Your task to perform on an android device: Clear all items from cart on ebay.com. Add logitech g pro to the cart on ebay.com Image 0: 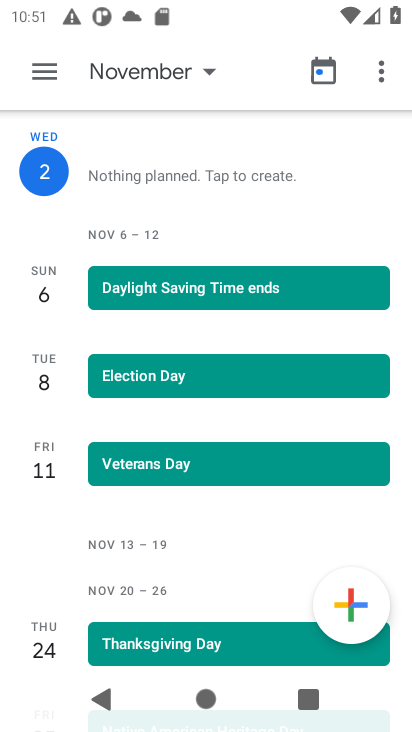
Step 0: press home button
Your task to perform on an android device: Clear all items from cart on ebay.com. Add logitech g pro to the cart on ebay.com Image 1: 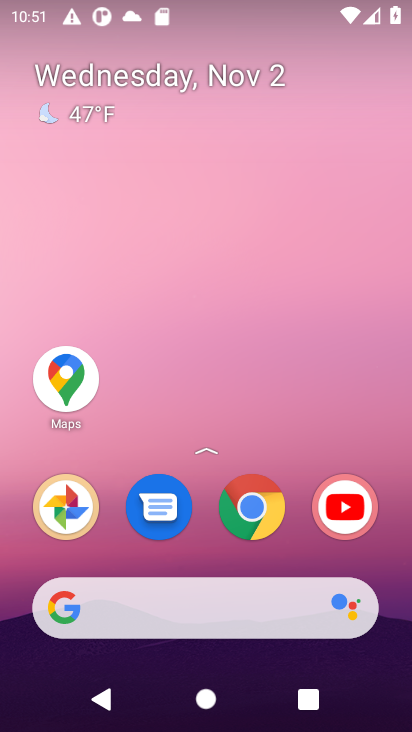
Step 1: click (241, 622)
Your task to perform on an android device: Clear all items from cart on ebay.com. Add logitech g pro to the cart on ebay.com Image 2: 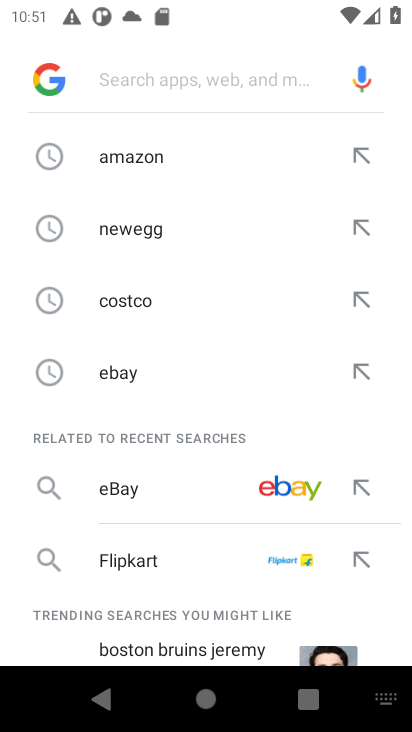
Step 2: click (172, 380)
Your task to perform on an android device: Clear all items from cart on ebay.com. Add logitech g pro to the cart on ebay.com Image 3: 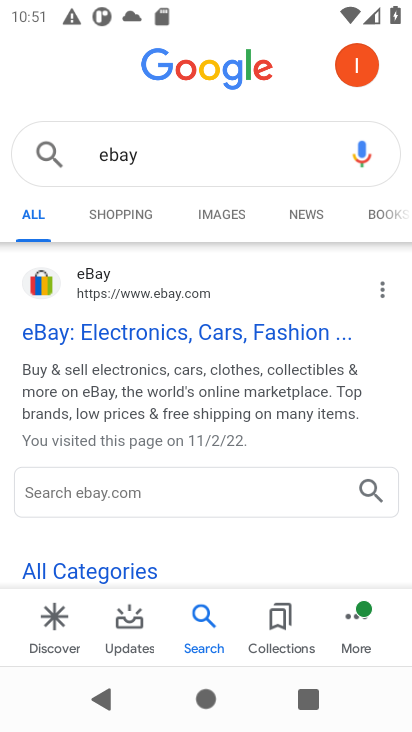
Step 3: click (189, 335)
Your task to perform on an android device: Clear all items from cart on ebay.com. Add logitech g pro to the cart on ebay.com Image 4: 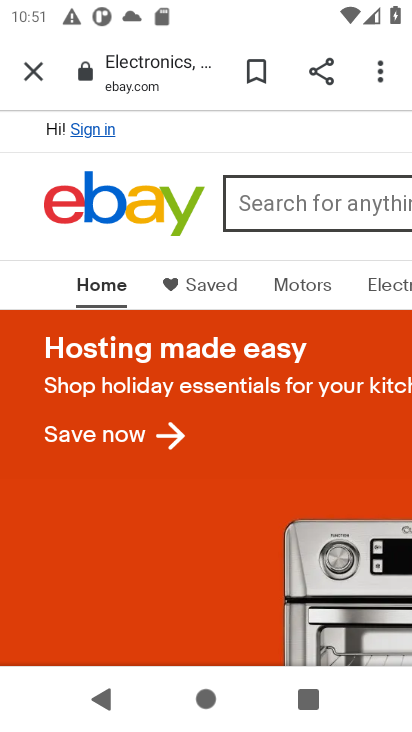
Step 4: click (291, 210)
Your task to perform on an android device: Clear all items from cart on ebay.com. Add logitech g pro to the cart on ebay.com Image 5: 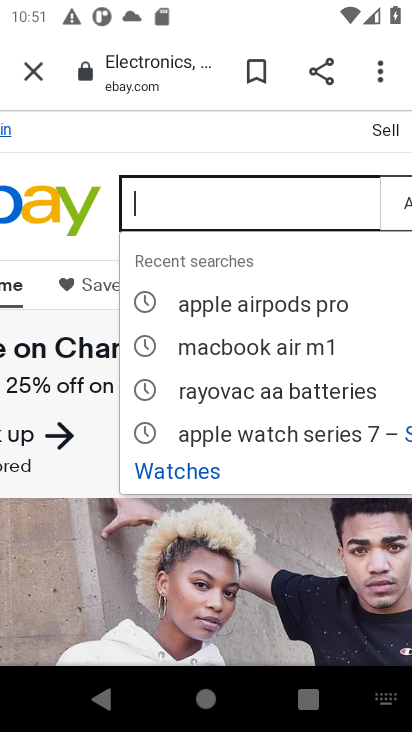
Step 5: type "logitech g pro"
Your task to perform on an android device: Clear all items from cart on ebay.com. Add logitech g pro to the cart on ebay.com Image 6: 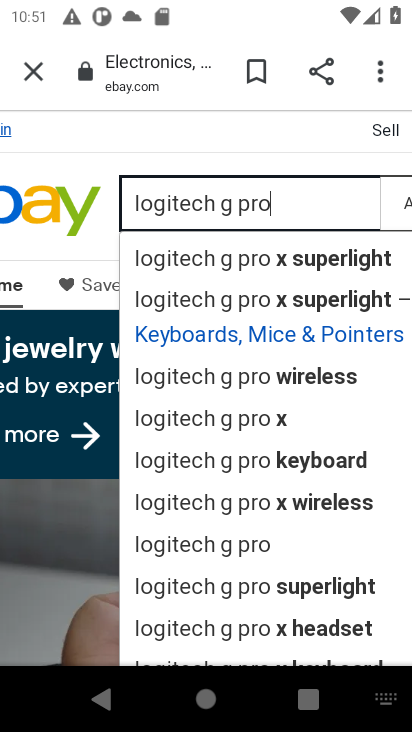
Step 6: click (240, 276)
Your task to perform on an android device: Clear all items from cart on ebay.com. Add logitech g pro to the cart on ebay.com Image 7: 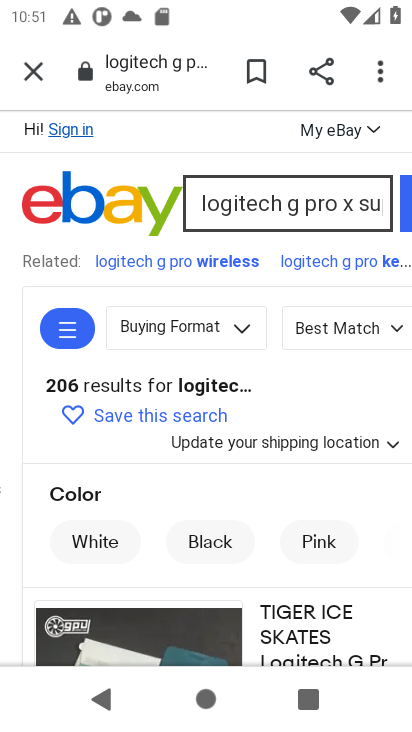
Step 7: task complete